Your task to perform on an android device: When is my next meeting? Image 0: 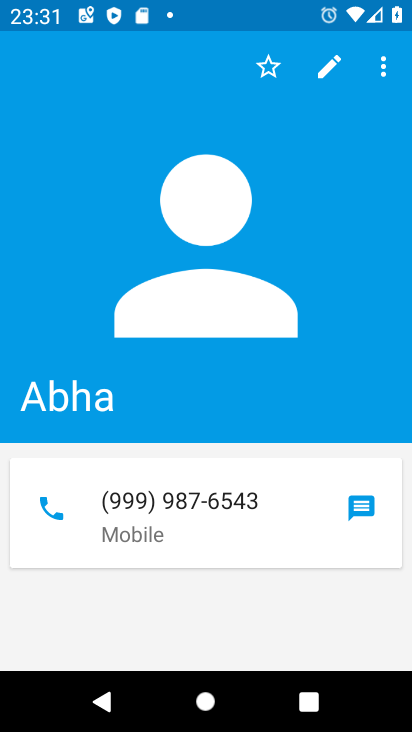
Step 0: press home button
Your task to perform on an android device: When is my next meeting? Image 1: 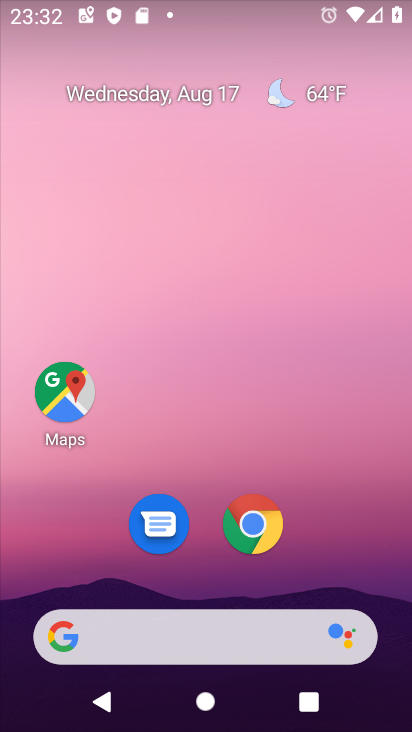
Step 1: drag from (332, 537) to (351, 9)
Your task to perform on an android device: When is my next meeting? Image 2: 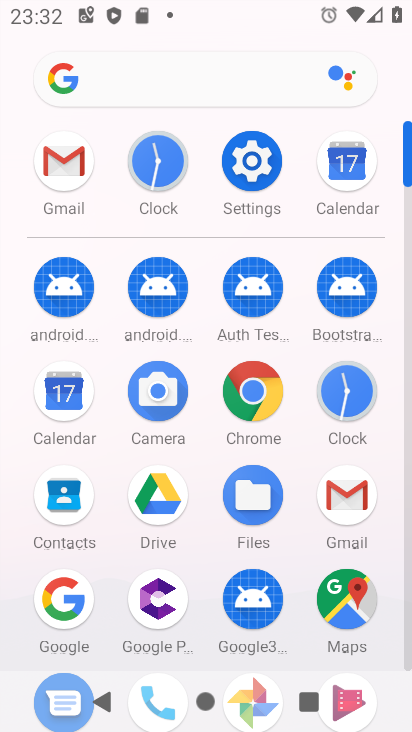
Step 2: click (350, 159)
Your task to perform on an android device: When is my next meeting? Image 3: 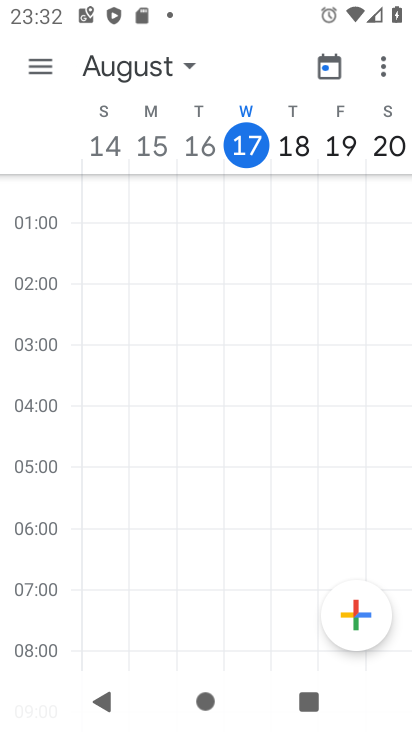
Step 3: click (248, 150)
Your task to perform on an android device: When is my next meeting? Image 4: 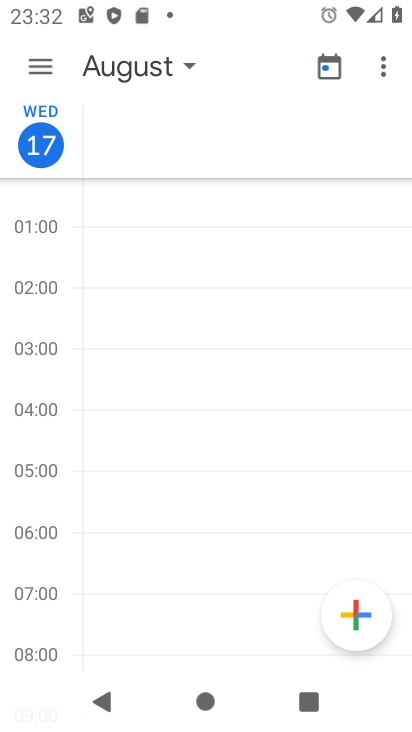
Step 4: click (34, 144)
Your task to perform on an android device: When is my next meeting? Image 5: 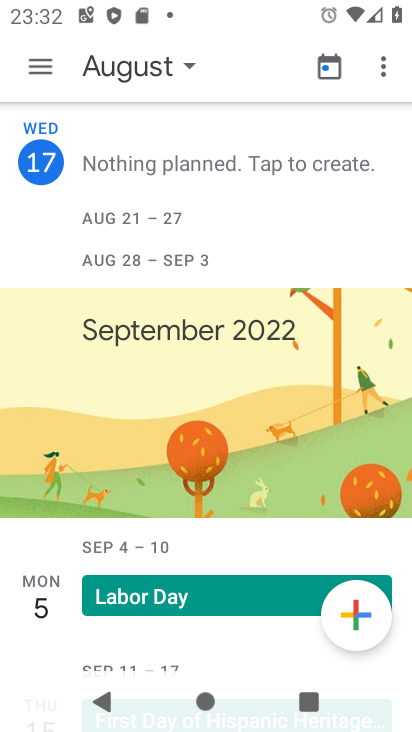
Step 5: task complete